Your task to perform on an android device: turn on showing notifications on the lock screen Image 0: 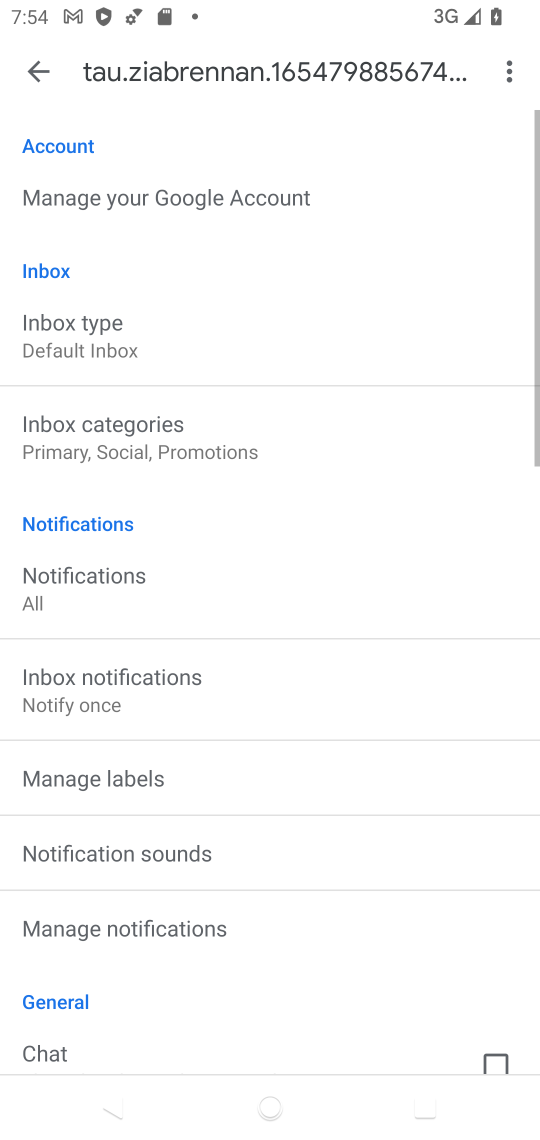
Step 0: press home button
Your task to perform on an android device: turn on showing notifications on the lock screen Image 1: 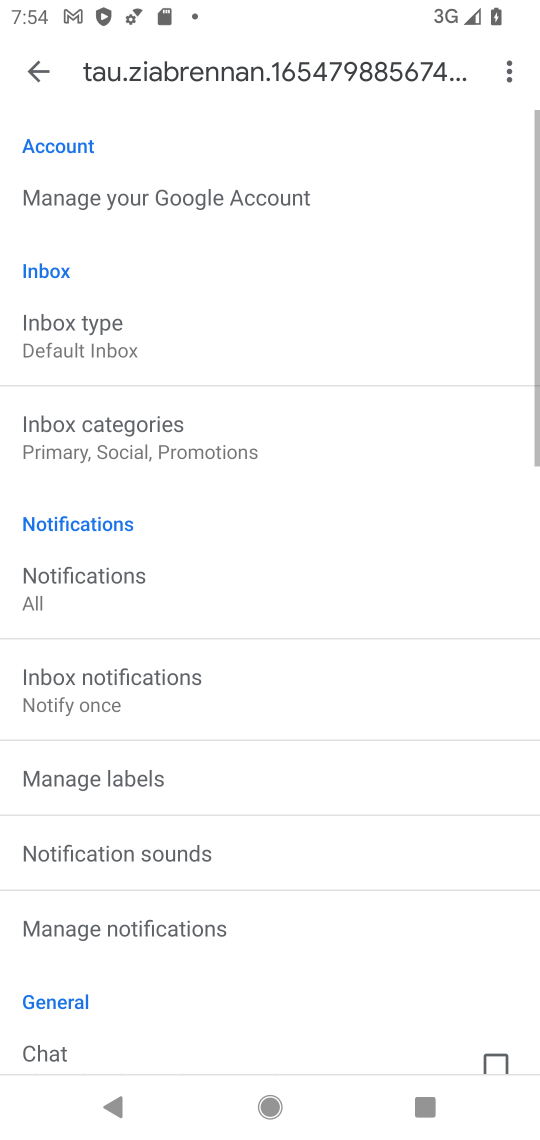
Step 1: press home button
Your task to perform on an android device: turn on showing notifications on the lock screen Image 2: 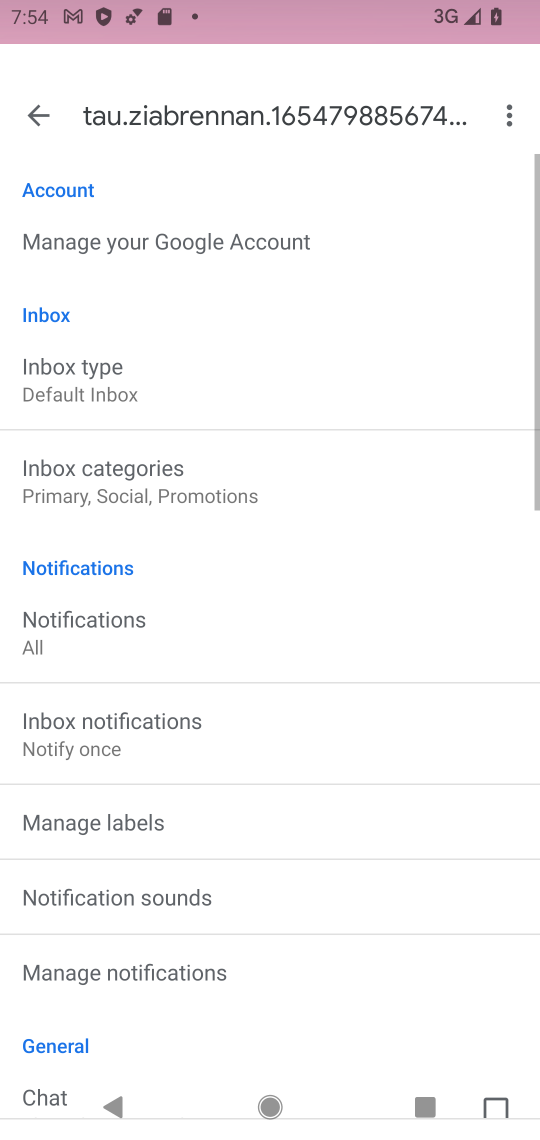
Step 2: press home button
Your task to perform on an android device: turn on showing notifications on the lock screen Image 3: 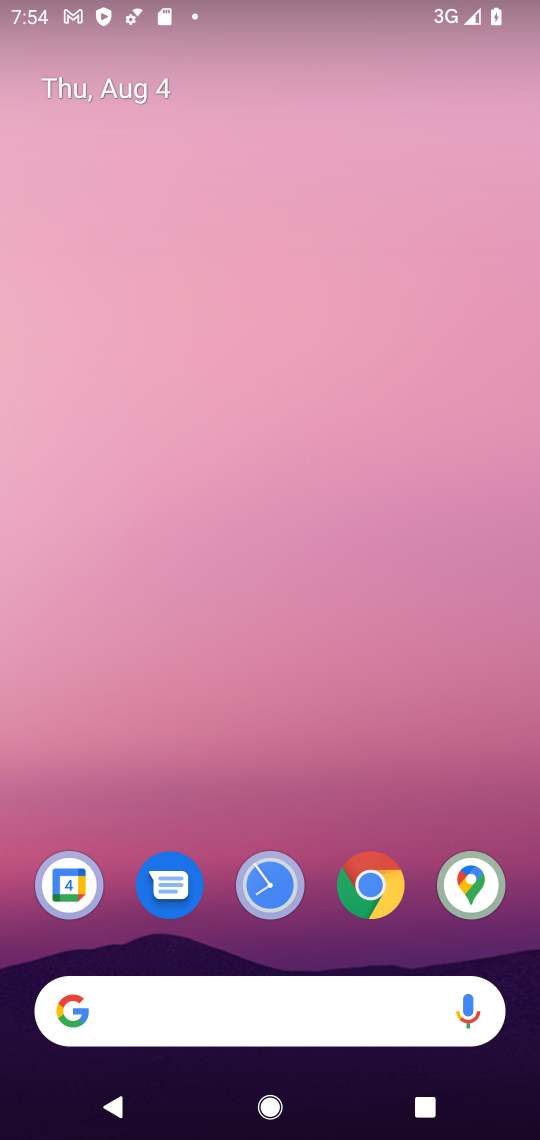
Step 3: press home button
Your task to perform on an android device: turn on showing notifications on the lock screen Image 4: 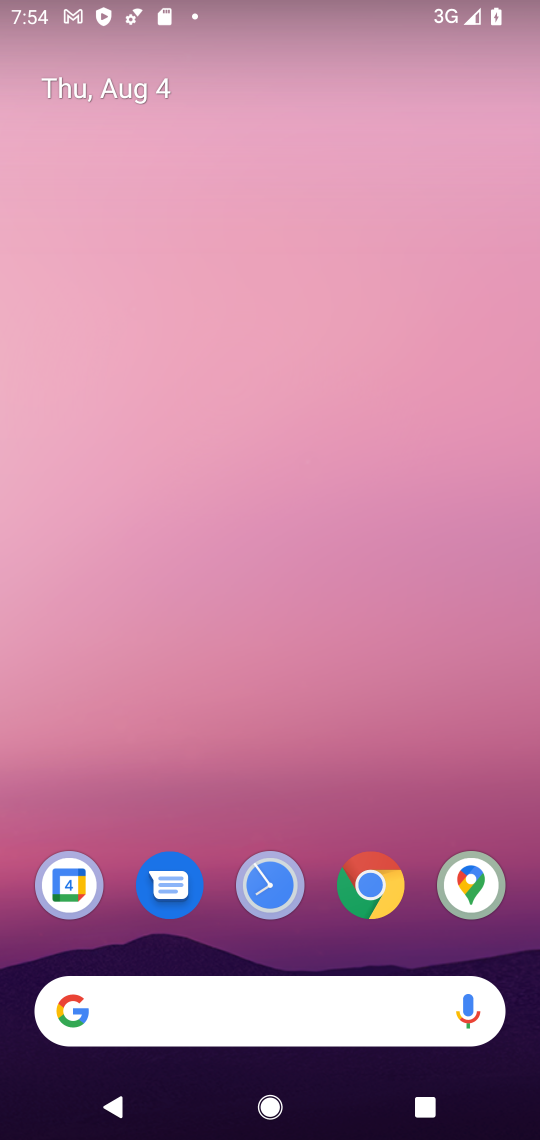
Step 4: press home button
Your task to perform on an android device: turn on showing notifications on the lock screen Image 5: 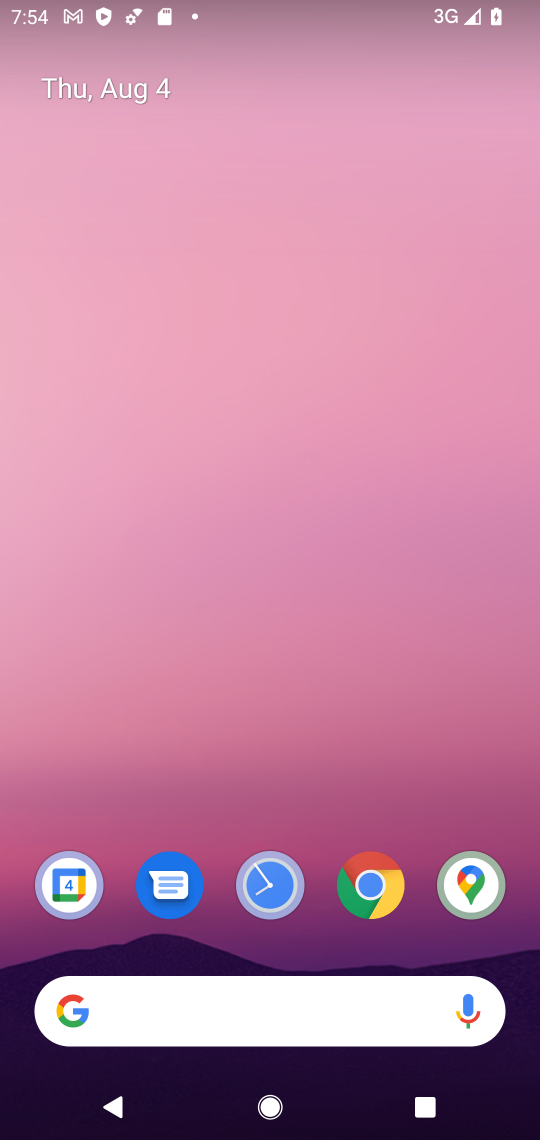
Step 5: drag from (223, 994) to (272, 0)
Your task to perform on an android device: turn on showing notifications on the lock screen Image 6: 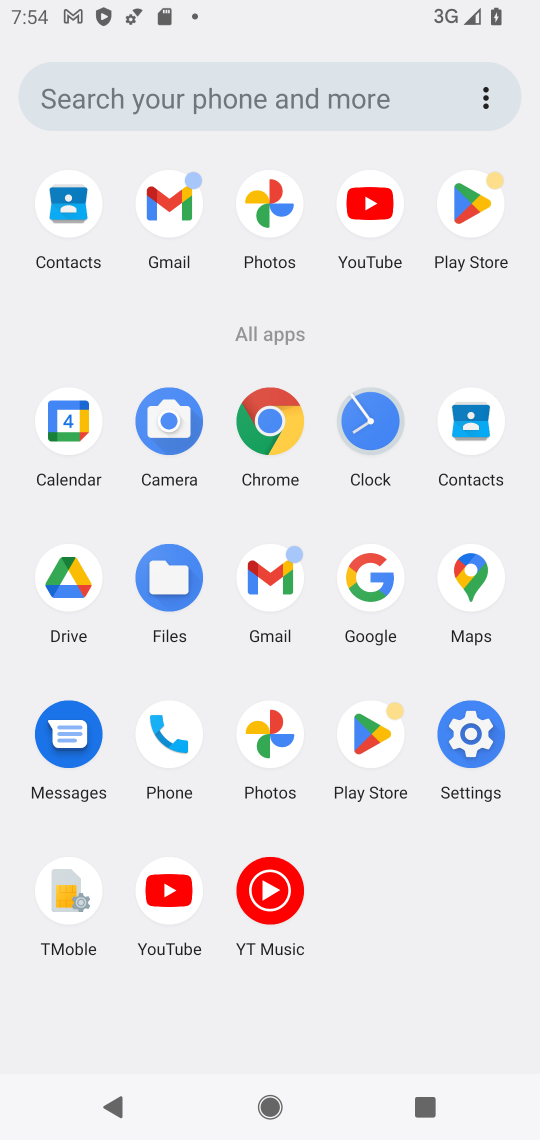
Step 6: click (489, 751)
Your task to perform on an android device: turn on showing notifications on the lock screen Image 7: 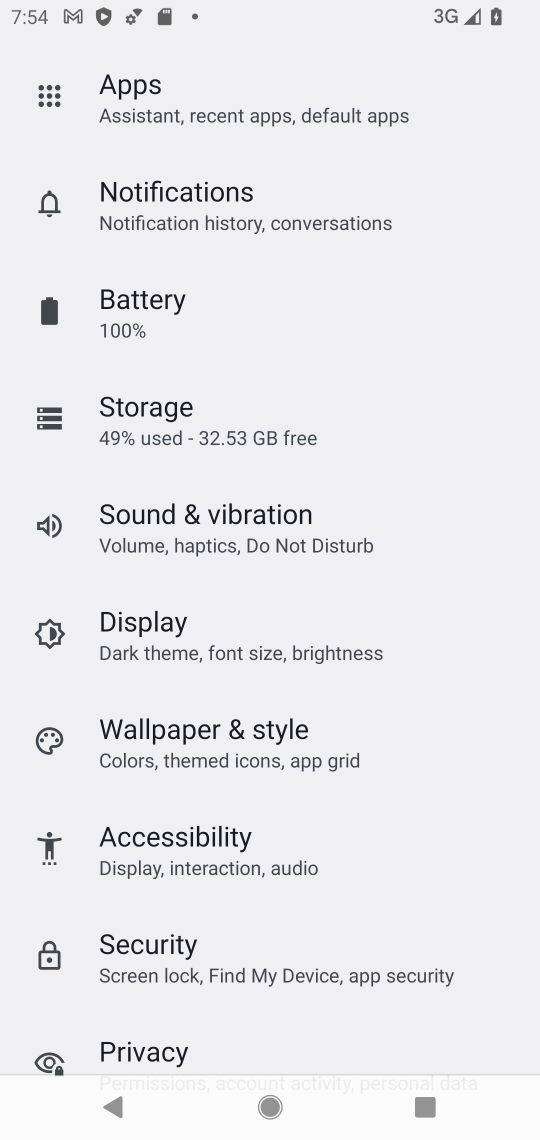
Step 7: click (208, 215)
Your task to perform on an android device: turn on showing notifications on the lock screen Image 8: 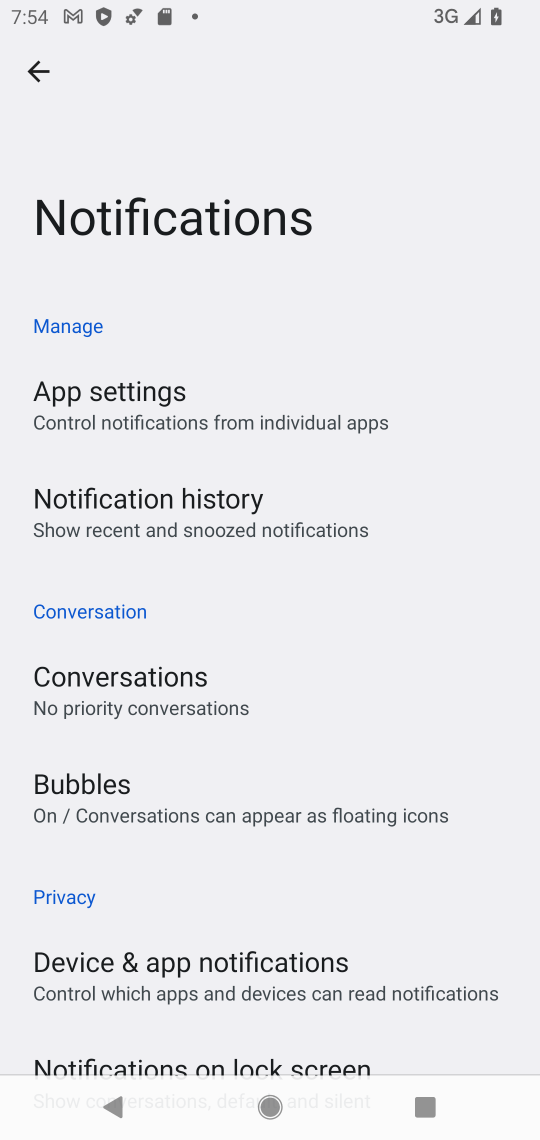
Step 8: drag from (228, 852) to (207, 211)
Your task to perform on an android device: turn on showing notifications on the lock screen Image 9: 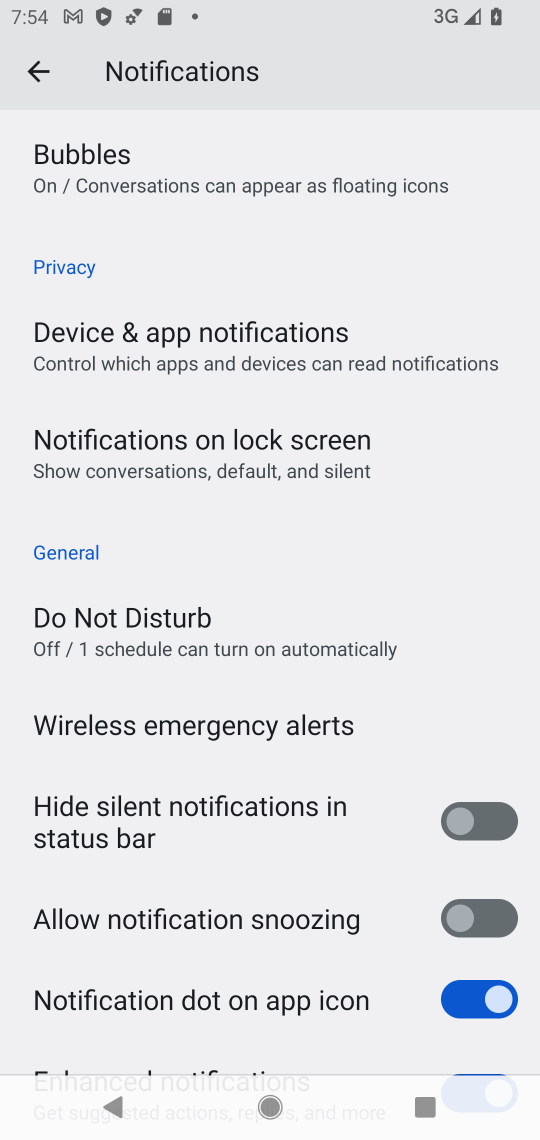
Step 9: click (267, 434)
Your task to perform on an android device: turn on showing notifications on the lock screen Image 10: 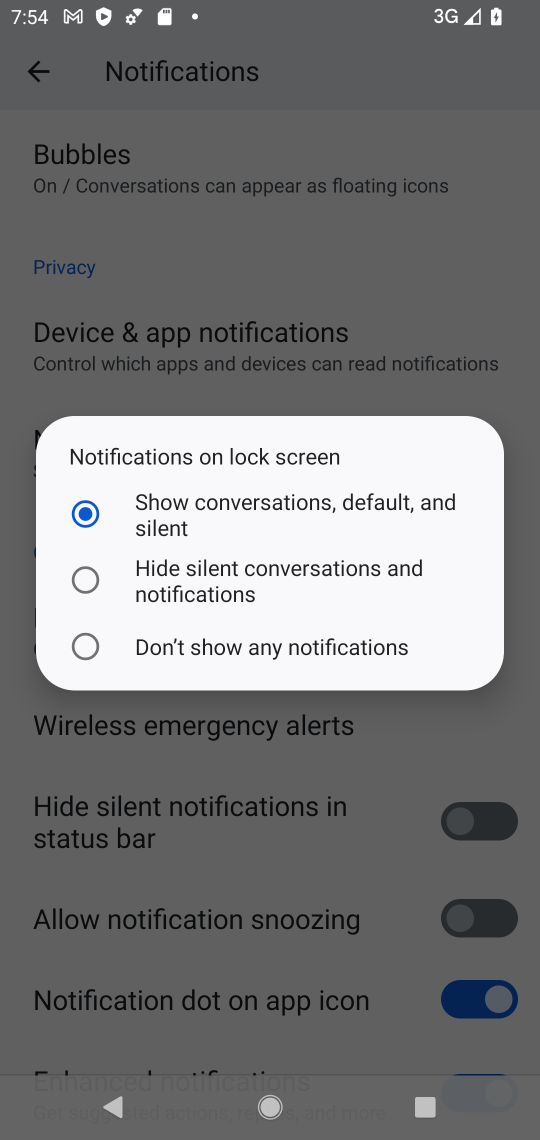
Step 10: click (275, 504)
Your task to perform on an android device: turn on showing notifications on the lock screen Image 11: 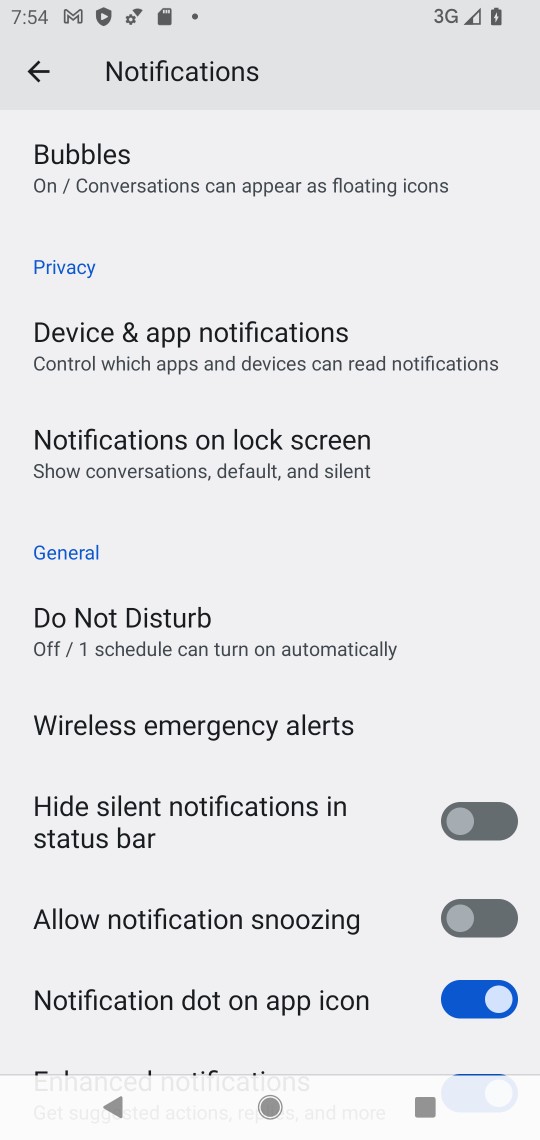
Step 11: task complete